Your task to perform on an android device: change the clock display to analog Image 0: 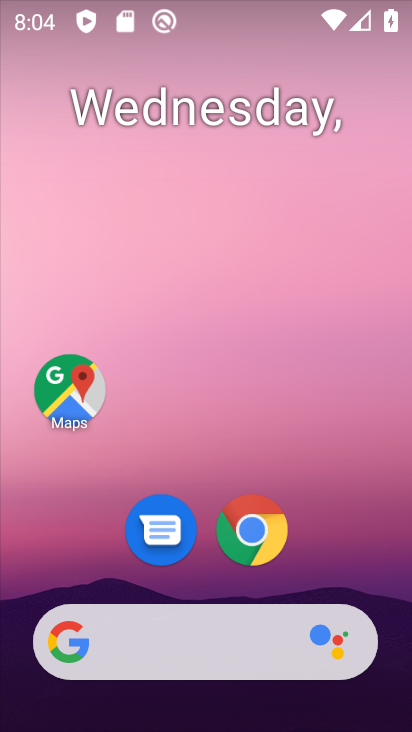
Step 0: drag from (184, 592) to (246, 82)
Your task to perform on an android device: change the clock display to analog Image 1: 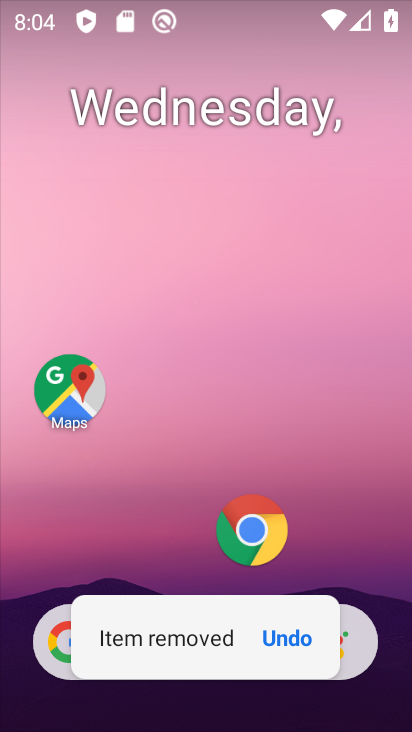
Step 1: drag from (100, 518) to (228, 14)
Your task to perform on an android device: change the clock display to analog Image 2: 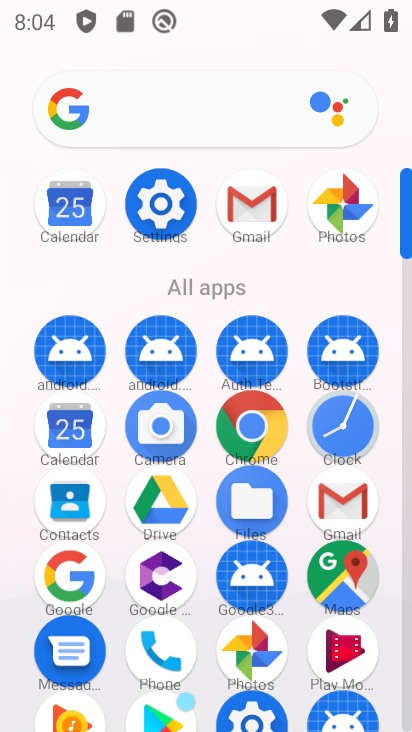
Step 2: click (339, 413)
Your task to perform on an android device: change the clock display to analog Image 3: 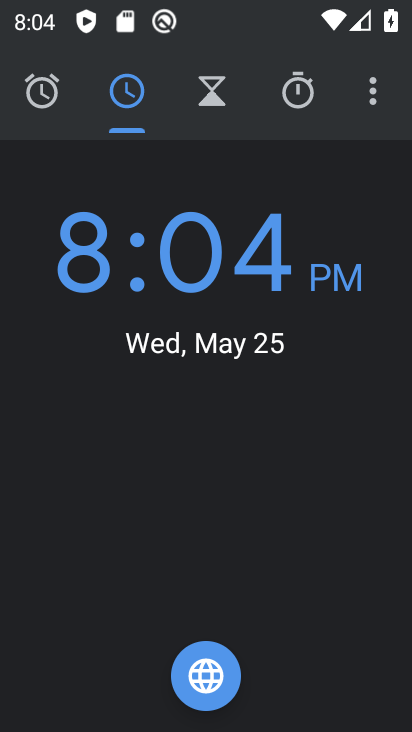
Step 3: click (373, 92)
Your task to perform on an android device: change the clock display to analog Image 4: 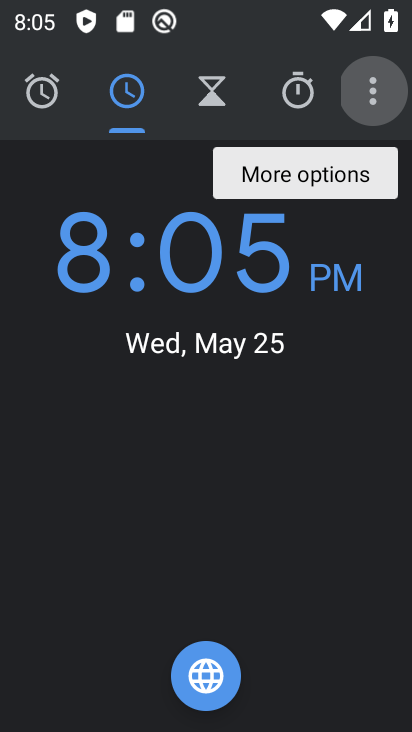
Step 4: click (373, 93)
Your task to perform on an android device: change the clock display to analog Image 5: 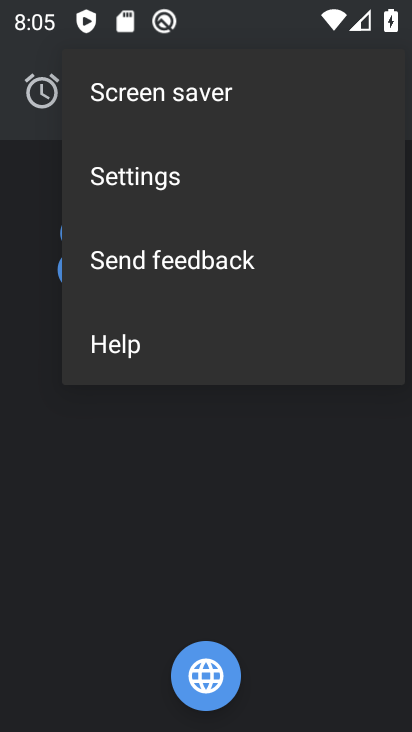
Step 5: click (131, 171)
Your task to perform on an android device: change the clock display to analog Image 6: 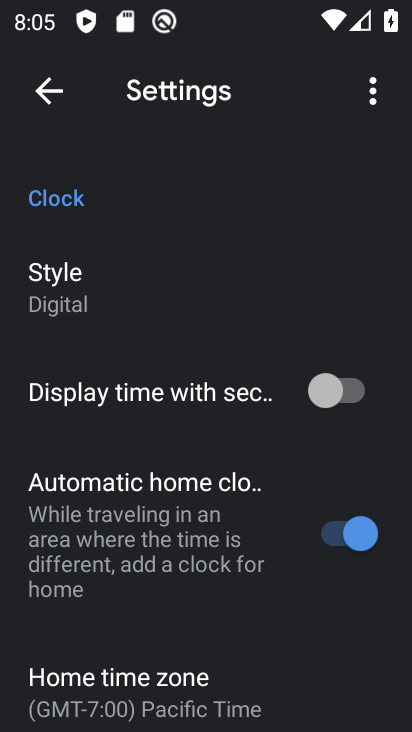
Step 6: click (72, 300)
Your task to perform on an android device: change the clock display to analog Image 7: 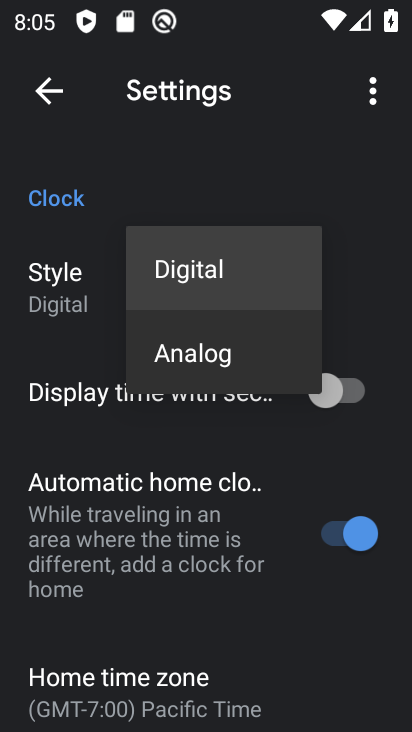
Step 7: click (211, 366)
Your task to perform on an android device: change the clock display to analog Image 8: 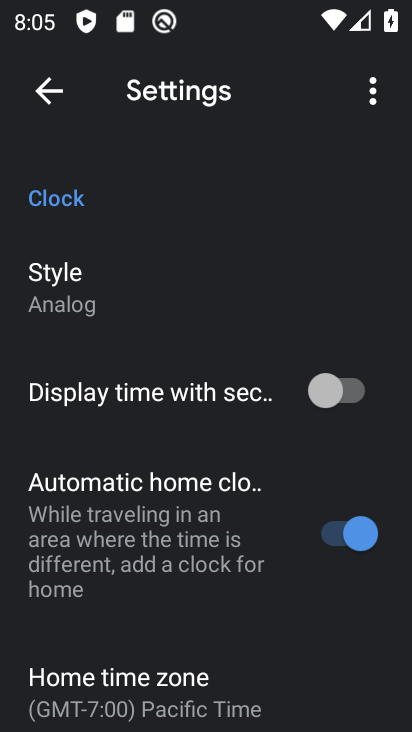
Step 8: task complete